Your task to perform on an android device: open chrome privacy settings Image 0: 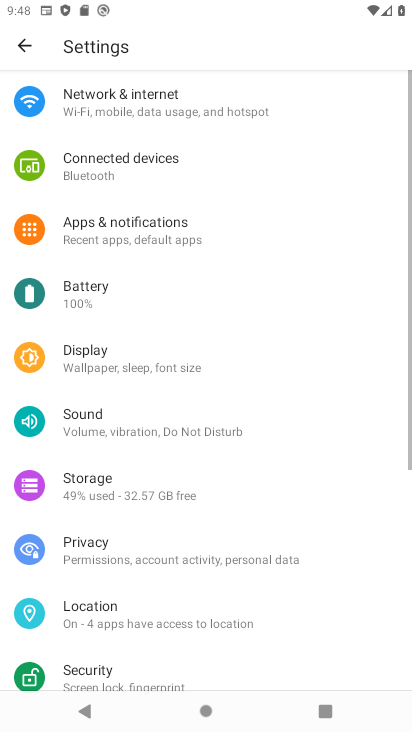
Step 0: press home button
Your task to perform on an android device: open chrome privacy settings Image 1: 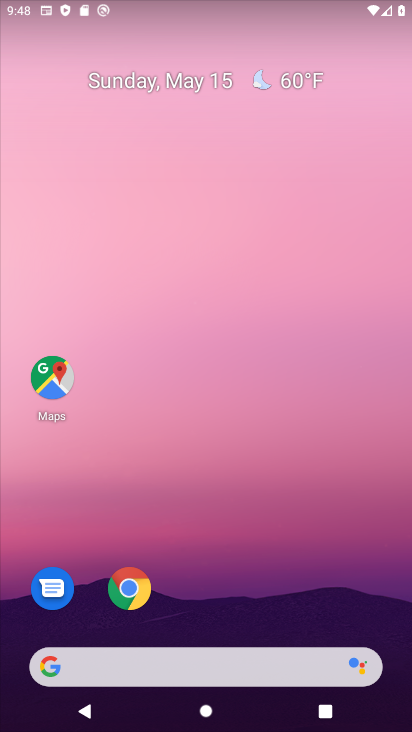
Step 1: click (133, 589)
Your task to perform on an android device: open chrome privacy settings Image 2: 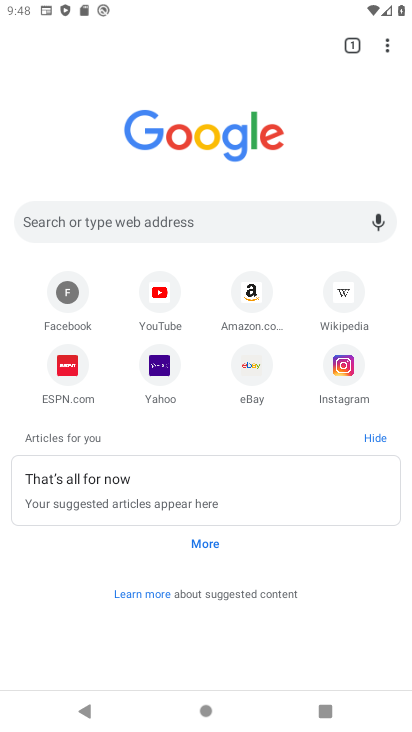
Step 2: click (384, 44)
Your task to perform on an android device: open chrome privacy settings Image 3: 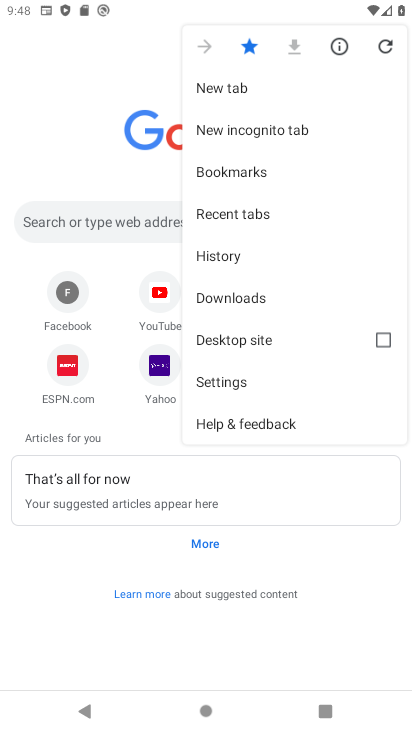
Step 3: click (242, 378)
Your task to perform on an android device: open chrome privacy settings Image 4: 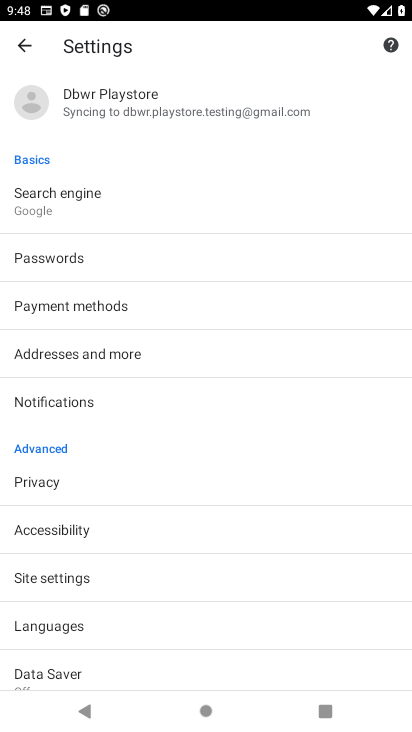
Step 4: click (182, 481)
Your task to perform on an android device: open chrome privacy settings Image 5: 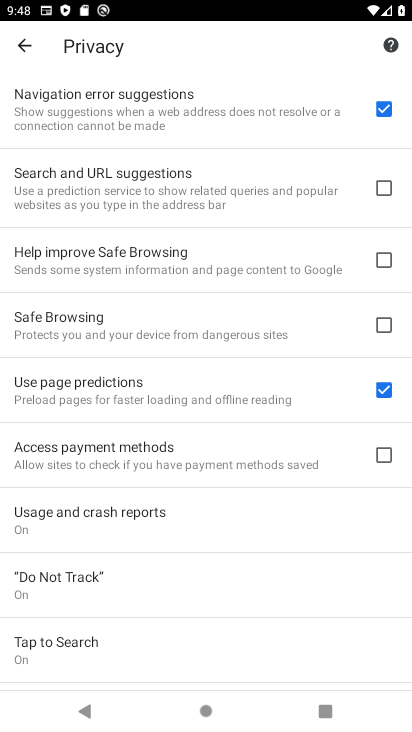
Step 5: task complete